Your task to perform on an android device: Open wifi settings Image 0: 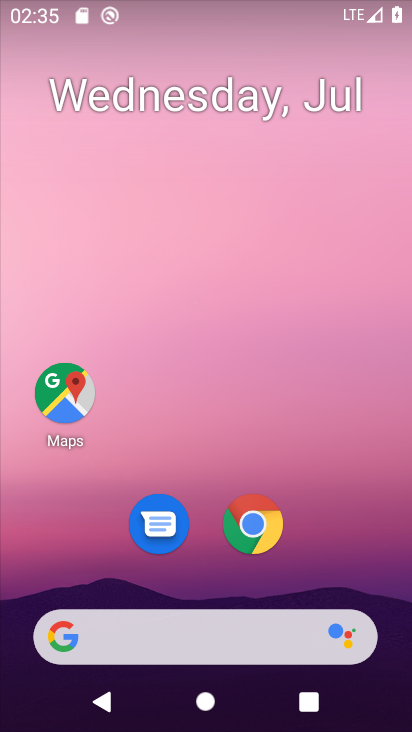
Step 0: drag from (325, 582) to (322, 43)
Your task to perform on an android device: Open wifi settings Image 1: 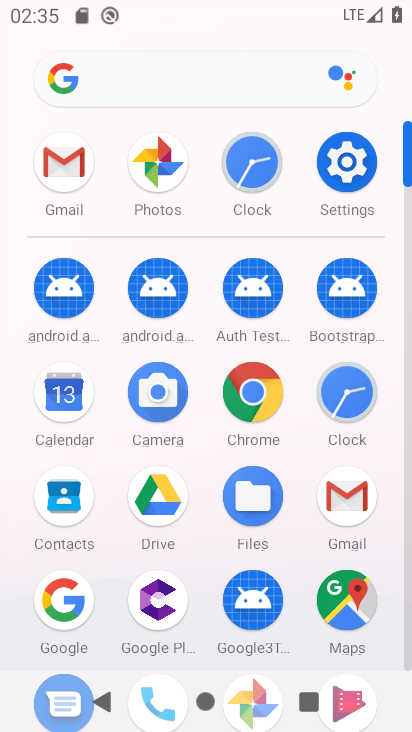
Step 1: click (344, 146)
Your task to perform on an android device: Open wifi settings Image 2: 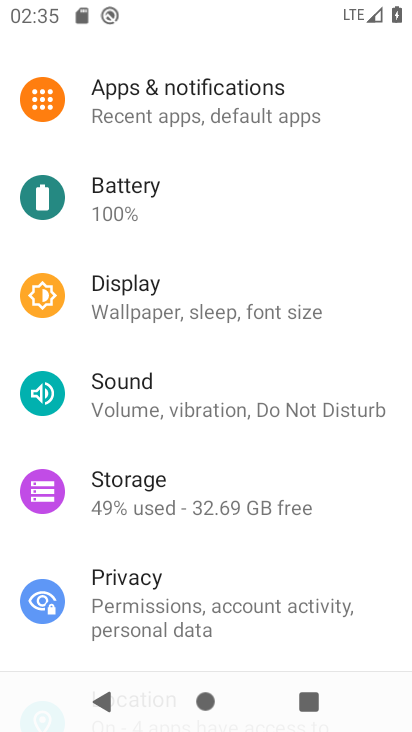
Step 2: drag from (264, 237) to (239, 493)
Your task to perform on an android device: Open wifi settings Image 3: 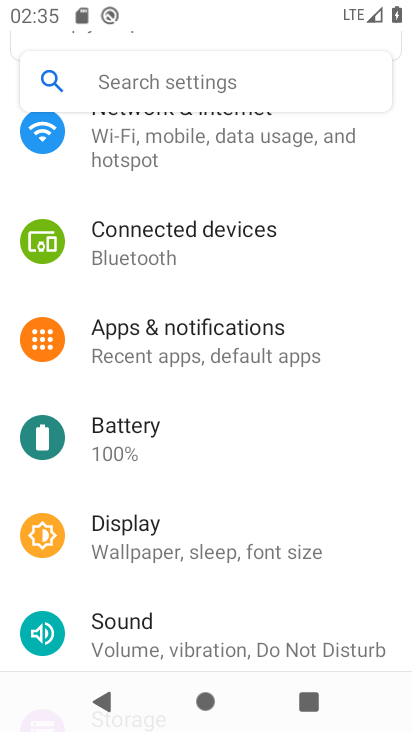
Step 3: drag from (220, 188) to (205, 548)
Your task to perform on an android device: Open wifi settings Image 4: 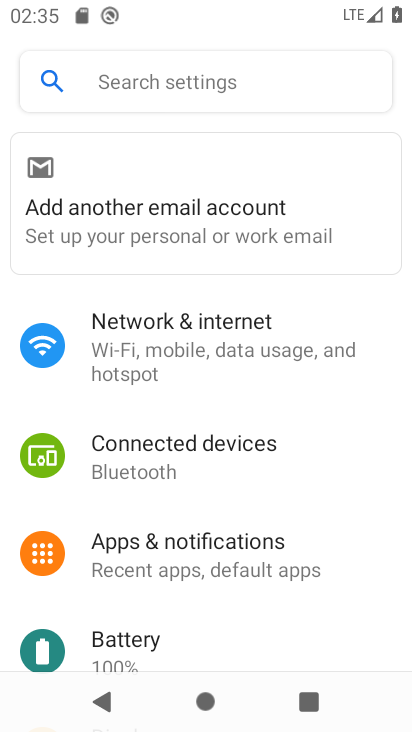
Step 4: click (202, 342)
Your task to perform on an android device: Open wifi settings Image 5: 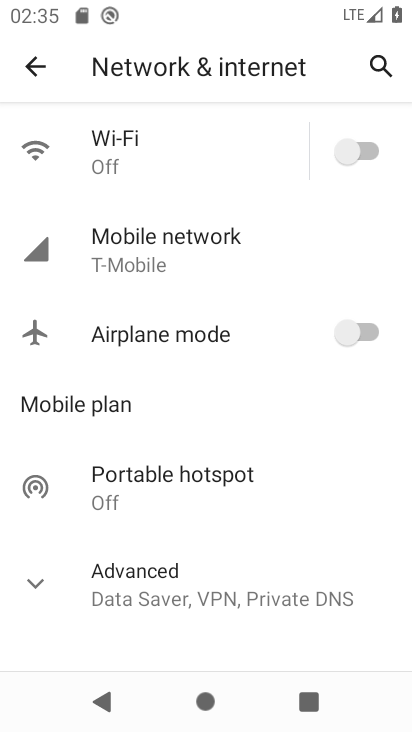
Step 5: click (128, 163)
Your task to perform on an android device: Open wifi settings Image 6: 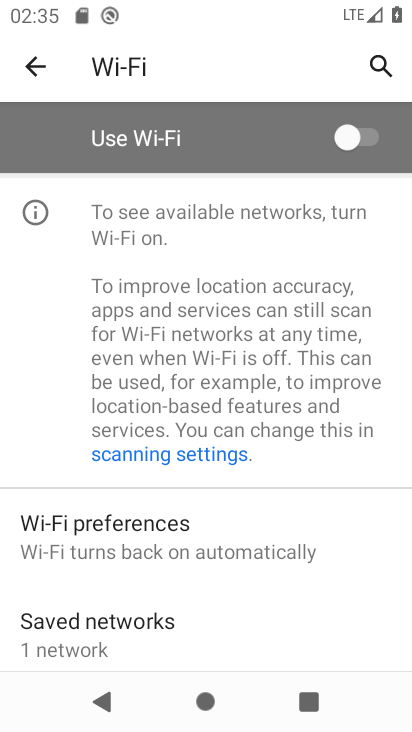
Step 6: task complete